Your task to perform on an android device: add a contact Image 0: 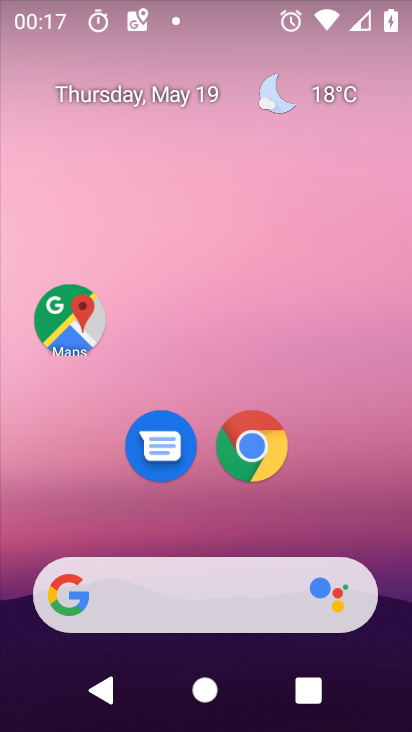
Step 0: drag from (167, 538) to (343, 66)
Your task to perform on an android device: add a contact Image 1: 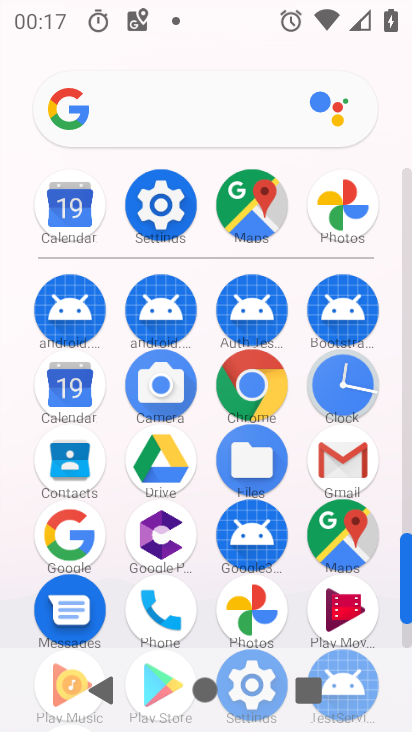
Step 1: click (77, 460)
Your task to perform on an android device: add a contact Image 2: 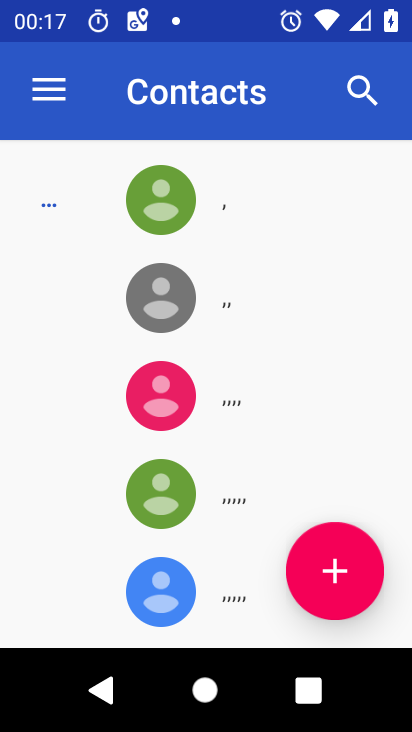
Step 2: task complete